Your task to perform on an android device: choose inbox layout in the gmail app Image 0: 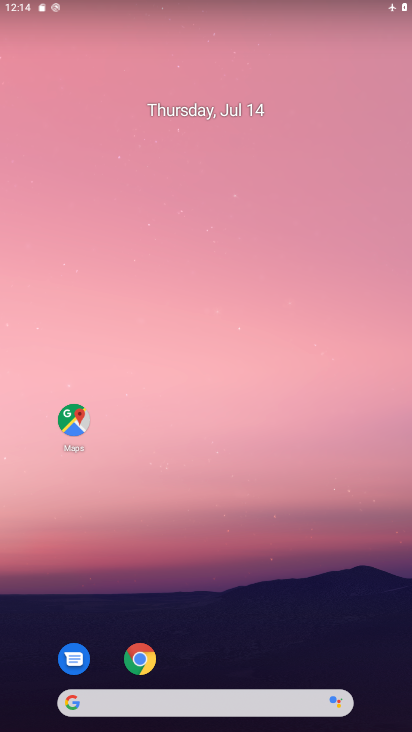
Step 0: drag from (301, 522) to (260, 100)
Your task to perform on an android device: choose inbox layout in the gmail app Image 1: 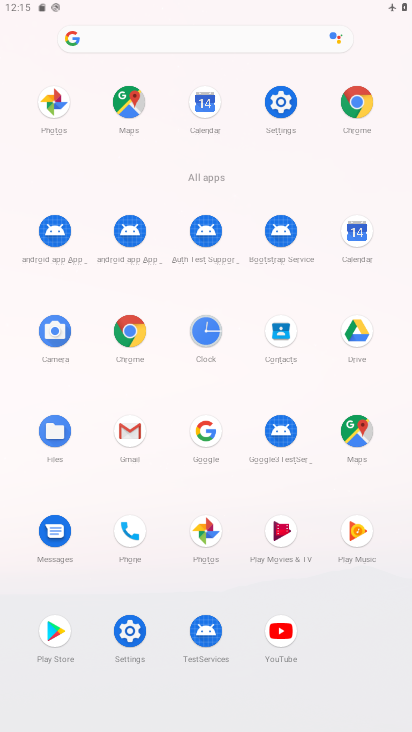
Step 1: click (136, 436)
Your task to perform on an android device: choose inbox layout in the gmail app Image 2: 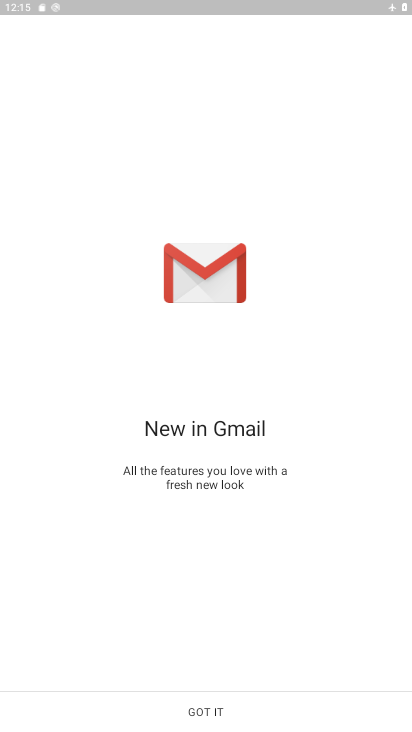
Step 2: click (221, 719)
Your task to perform on an android device: choose inbox layout in the gmail app Image 3: 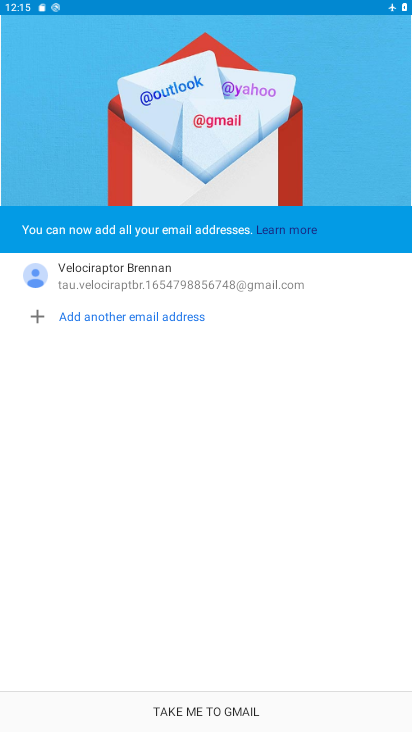
Step 3: click (225, 707)
Your task to perform on an android device: choose inbox layout in the gmail app Image 4: 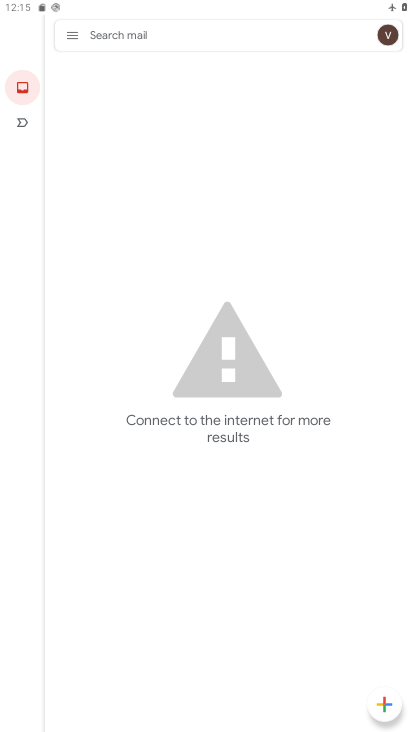
Step 4: click (65, 34)
Your task to perform on an android device: choose inbox layout in the gmail app Image 5: 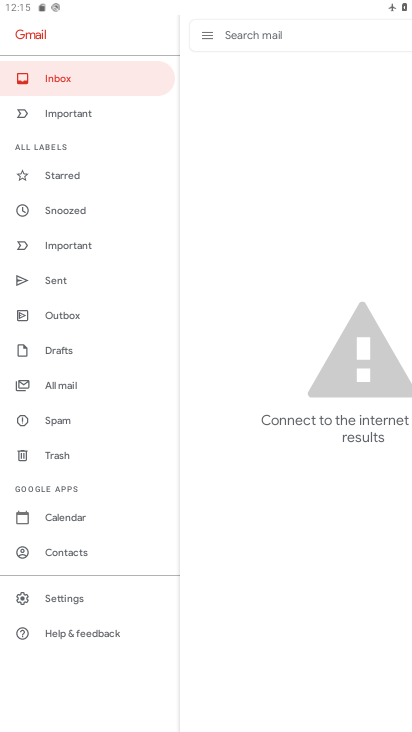
Step 5: click (57, 603)
Your task to perform on an android device: choose inbox layout in the gmail app Image 6: 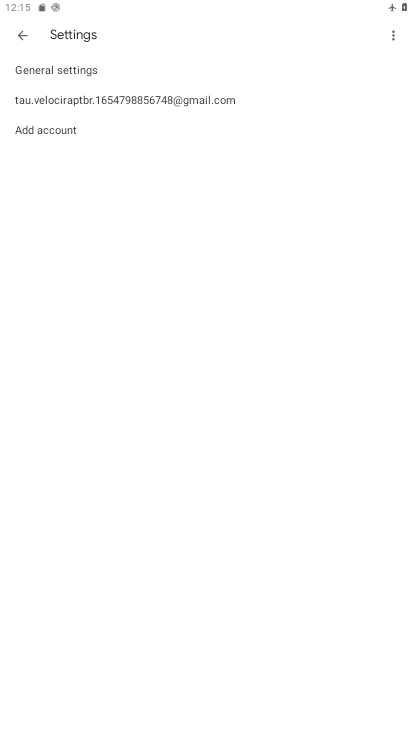
Step 6: click (192, 110)
Your task to perform on an android device: choose inbox layout in the gmail app Image 7: 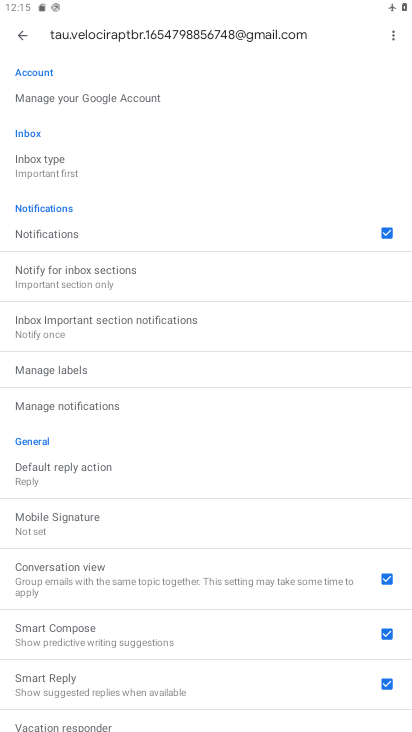
Step 7: click (70, 158)
Your task to perform on an android device: choose inbox layout in the gmail app Image 8: 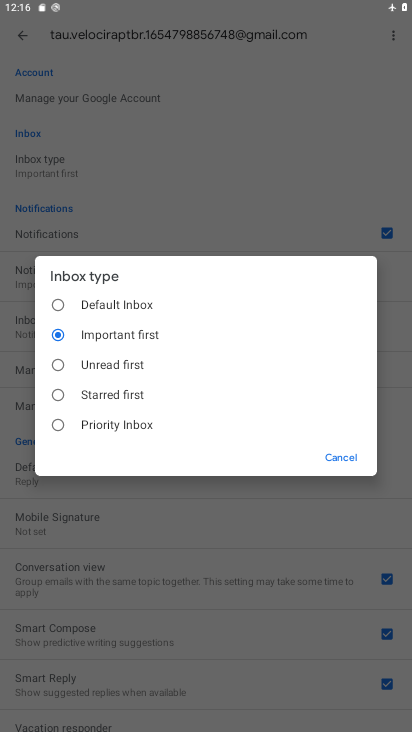
Step 8: task complete